Your task to perform on an android device: show emergency info Image 0: 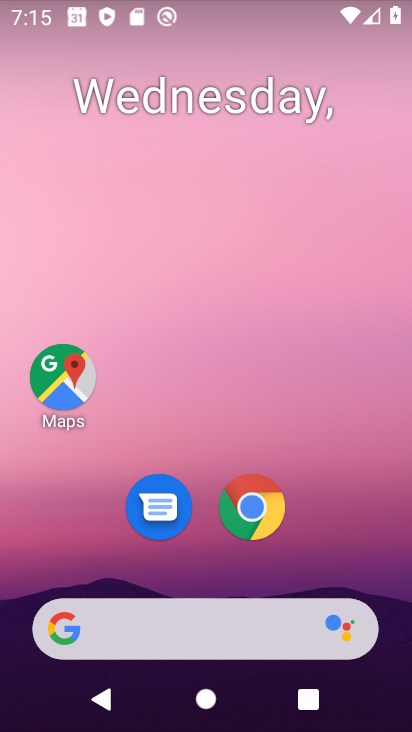
Step 0: click (208, 186)
Your task to perform on an android device: show emergency info Image 1: 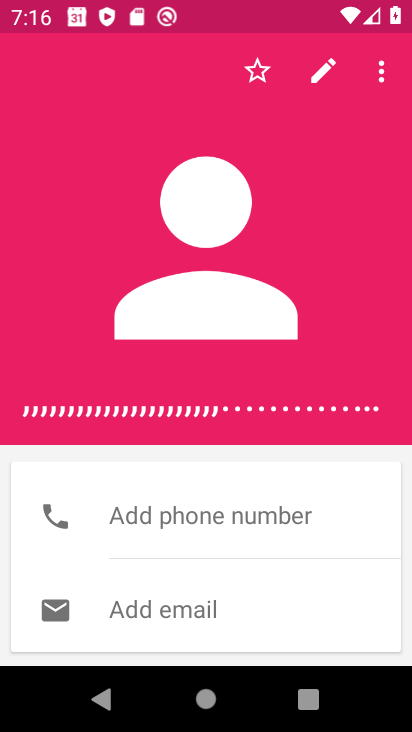
Step 1: press home button
Your task to perform on an android device: show emergency info Image 2: 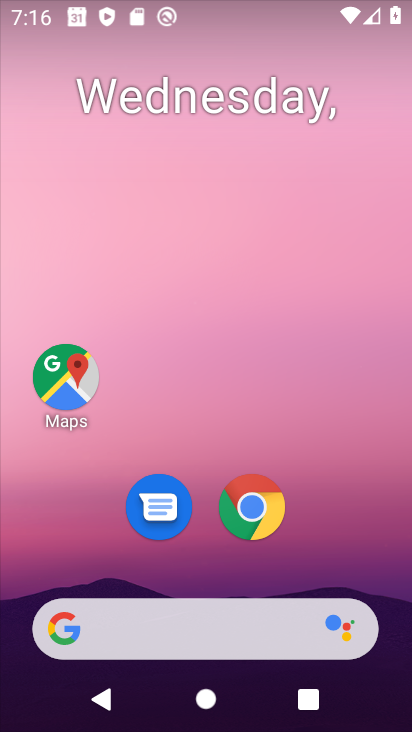
Step 2: drag from (268, 655) to (245, 152)
Your task to perform on an android device: show emergency info Image 3: 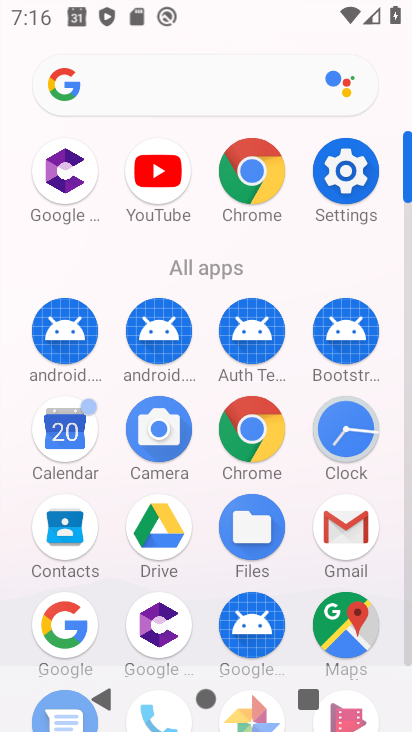
Step 3: click (350, 170)
Your task to perform on an android device: show emergency info Image 4: 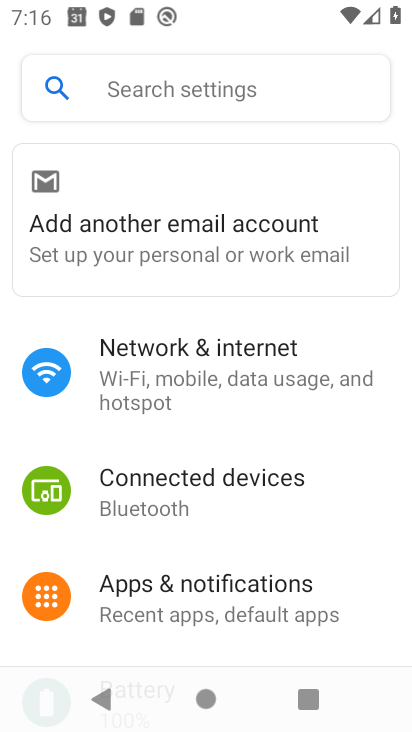
Step 4: click (181, 98)
Your task to perform on an android device: show emergency info Image 5: 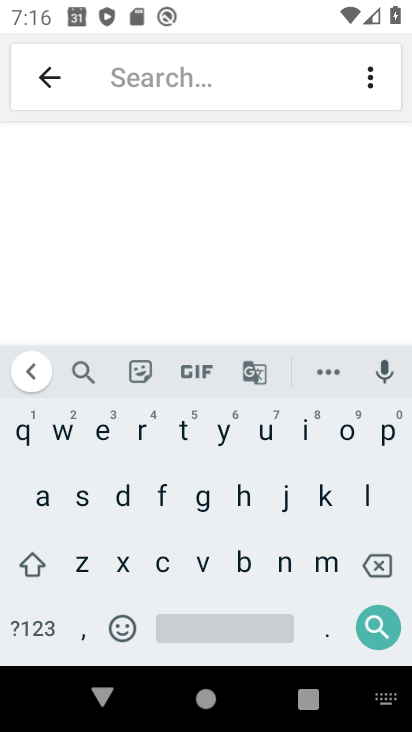
Step 5: click (99, 426)
Your task to perform on an android device: show emergency info Image 6: 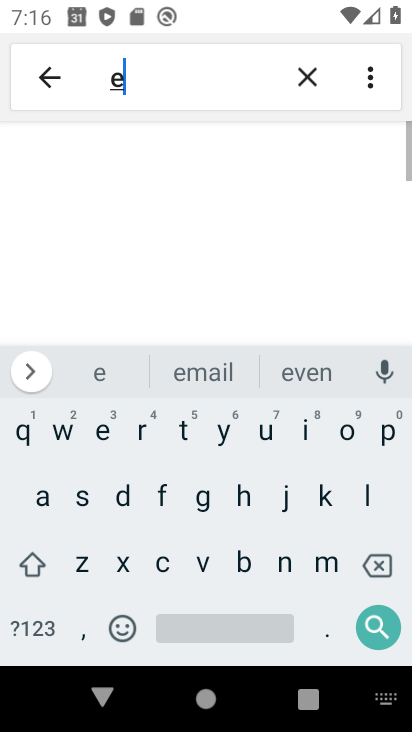
Step 6: click (324, 569)
Your task to perform on an android device: show emergency info Image 7: 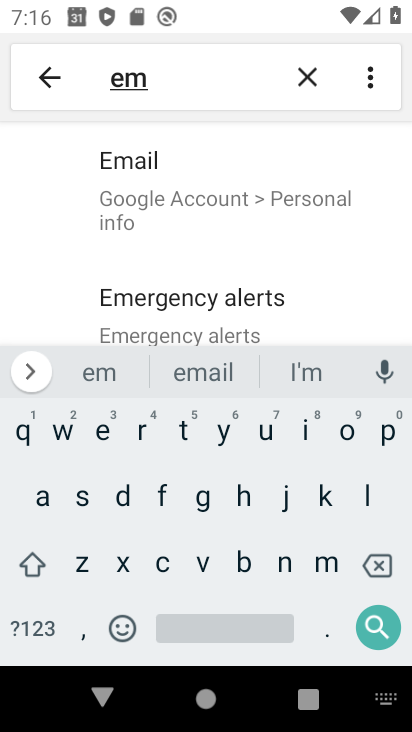
Step 7: click (104, 433)
Your task to perform on an android device: show emergency info Image 8: 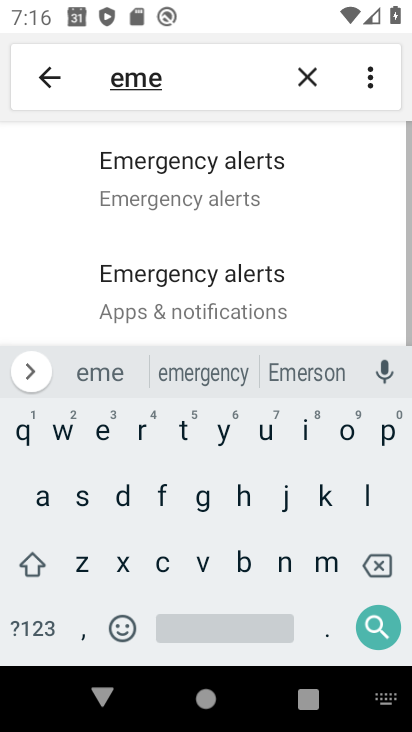
Step 8: click (196, 367)
Your task to perform on an android device: show emergency info Image 9: 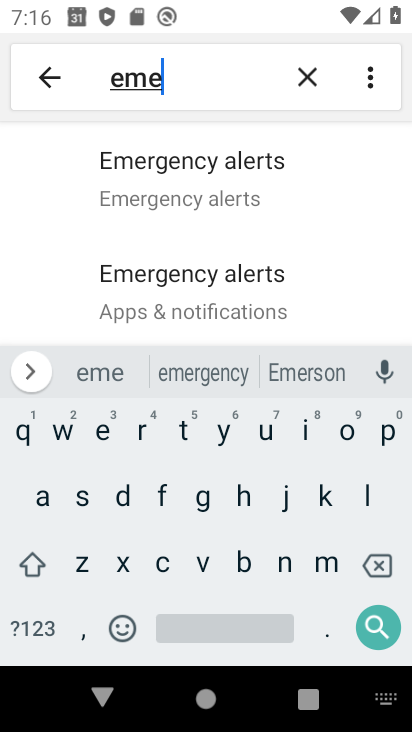
Step 9: drag from (226, 262) to (265, 121)
Your task to perform on an android device: show emergency info Image 10: 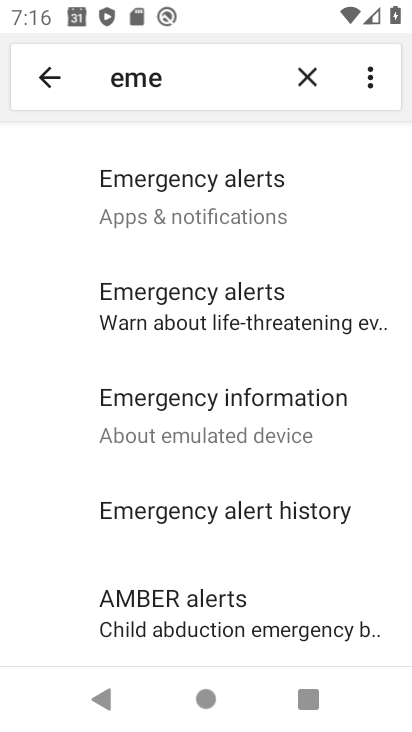
Step 10: click (220, 420)
Your task to perform on an android device: show emergency info Image 11: 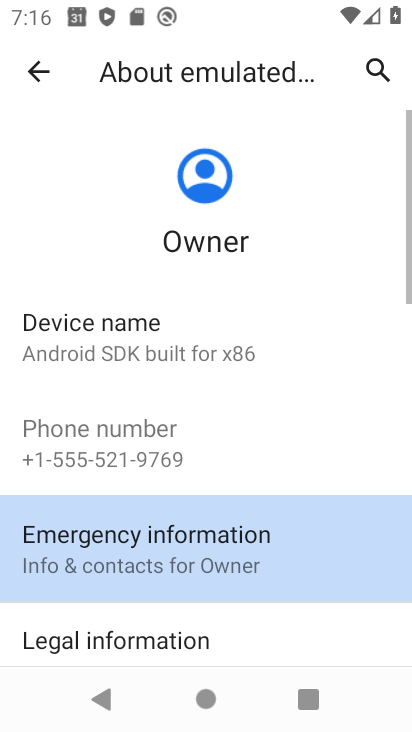
Step 11: click (272, 557)
Your task to perform on an android device: show emergency info Image 12: 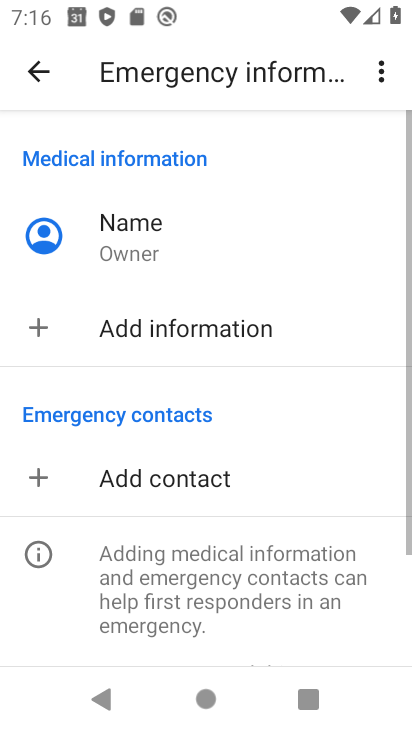
Step 12: task complete